Your task to perform on an android device: delete a single message in the gmail app Image 0: 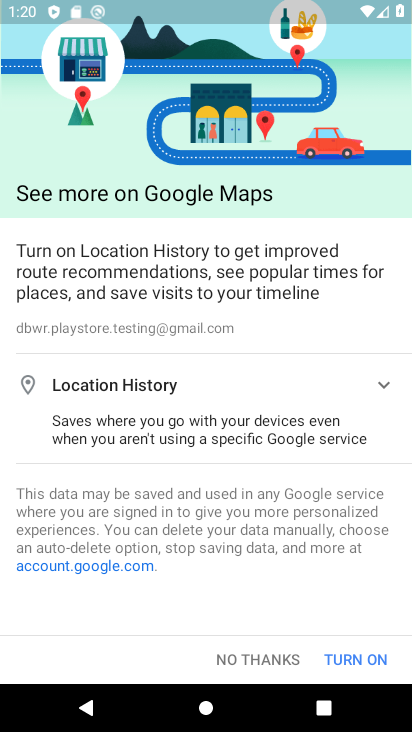
Step 0: press home button
Your task to perform on an android device: delete a single message in the gmail app Image 1: 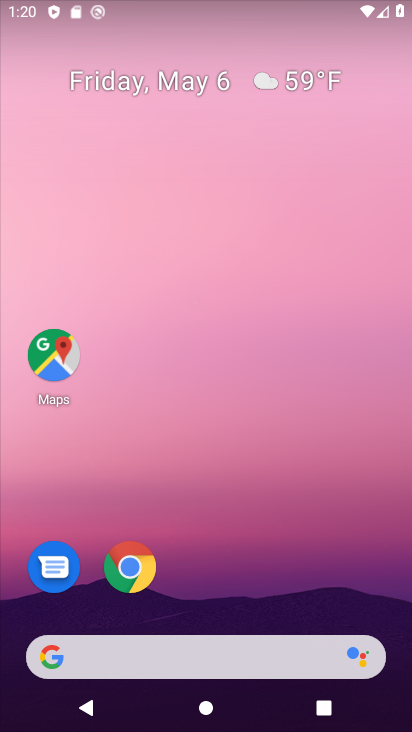
Step 1: drag from (279, 578) to (211, 44)
Your task to perform on an android device: delete a single message in the gmail app Image 2: 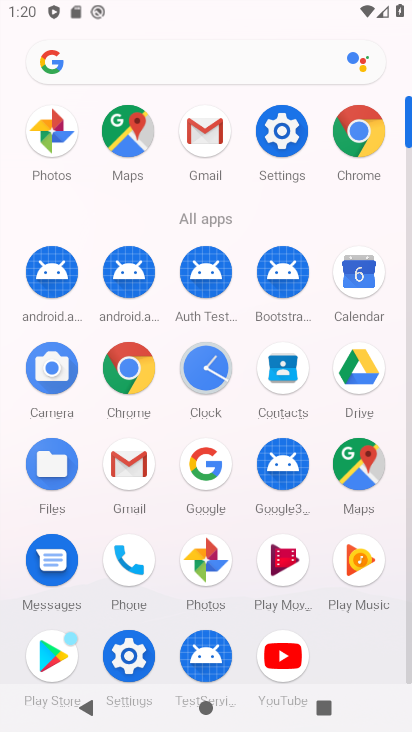
Step 2: click (119, 470)
Your task to perform on an android device: delete a single message in the gmail app Image 3: 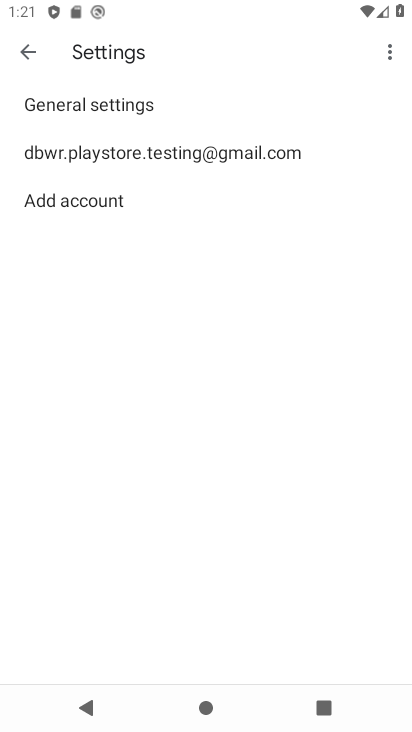
Step 3: click (156, 158)
Your task to perform on an android device: delete a single message in the gmail app Image 4: 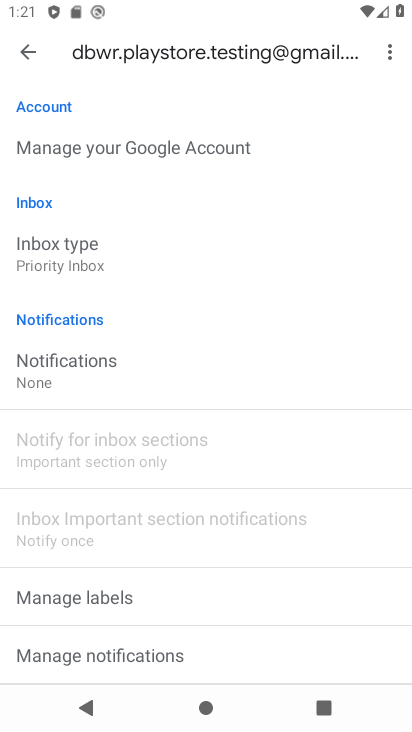
Step 4: drag from (202, 619) to (179, 562)
Your task to perform on an android device: delete a single message in the gmail app Image 5: 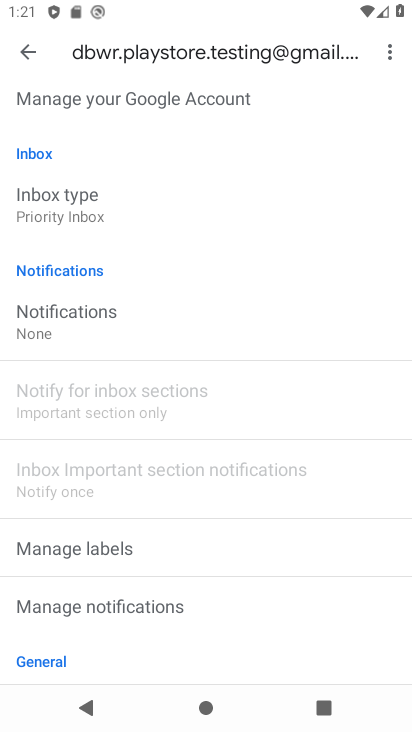
Step 5: click (38, 58)
Your task to perform on an android device: delete a single message in the gmail app Image 6: 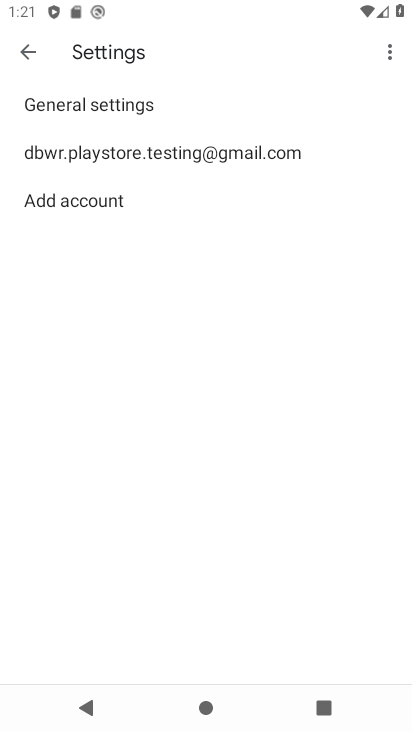
Step 6: click (34, 64)
Your task to perform on an android device: delete a single message in the gmail app Image 7: 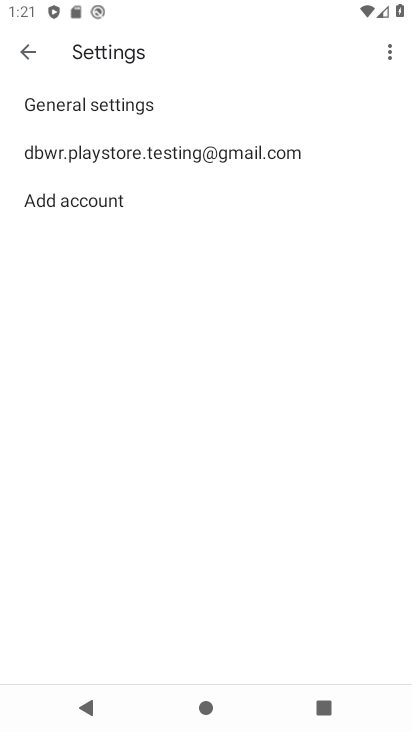
Step 7: click (29, 55)
Your task to perform on an android device: delete a single message in the gmail app Image 8: 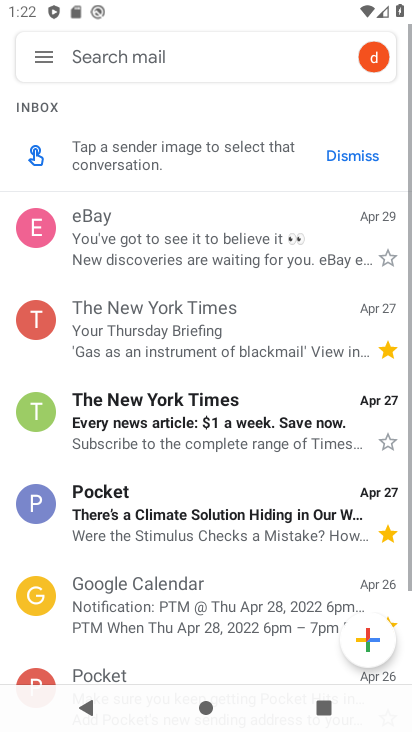
Step 8: click (29, 54)
Your task to perform on an android device: delete a single message in the gmail app Image 9: 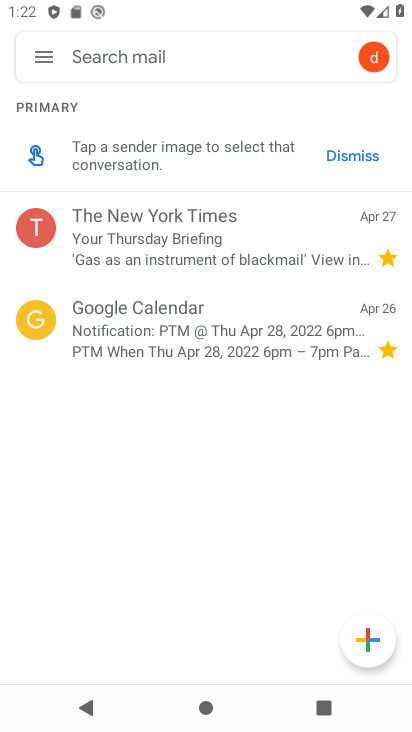
Step 9: click (50, 63)
Your task to perform on an android device: delete a single message in the gmail app Image 10: 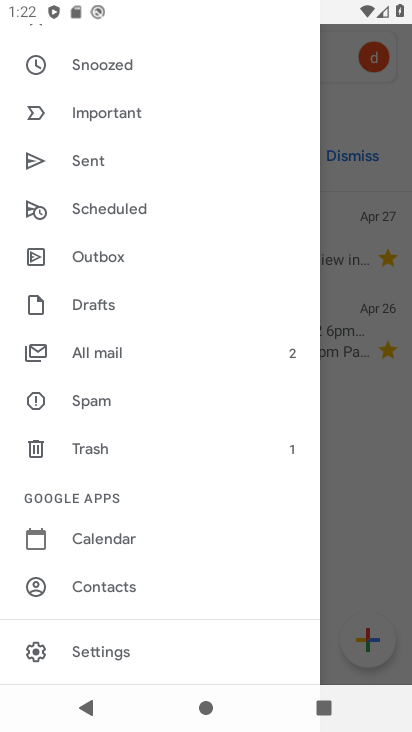
Step 10: drag from (158, 548) to (147, 327)
Your task to perform on an android device: delete a single message in the gmail app Image 11: 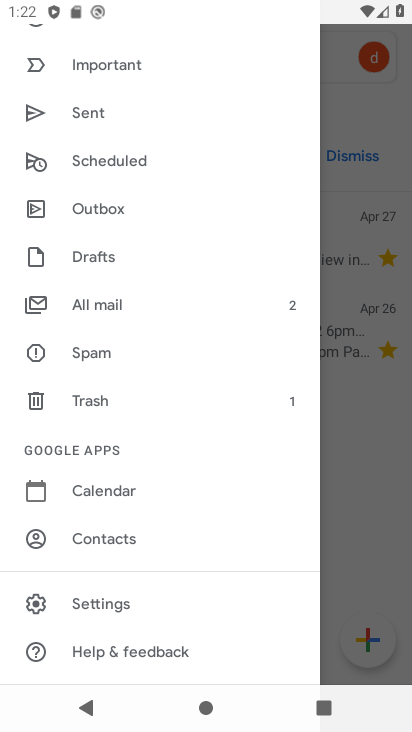
Step 11: click (333, 233)
Your task to perform on an android device: delete a single message in the gmail app Image 12: 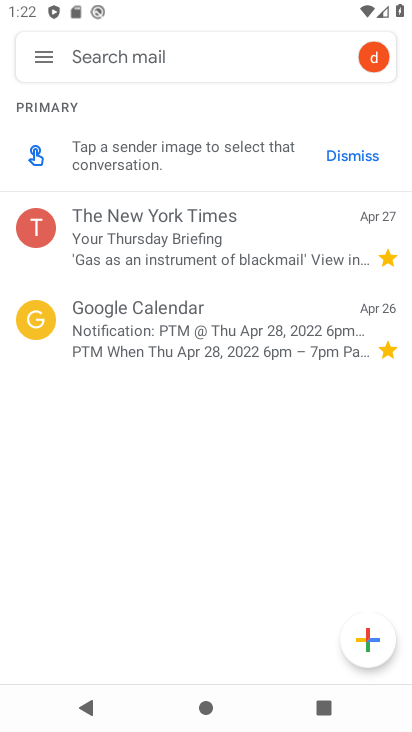
Step 12: click (36, 218)
Your task to perform on an android device: delete a single message in the gmail app Image 13: 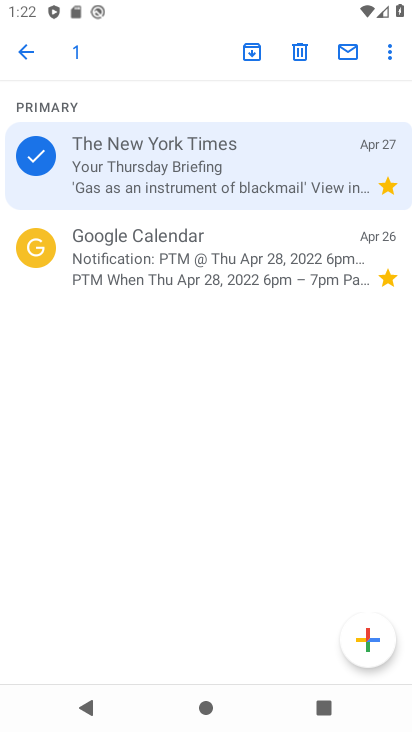
Step 13: click (293, 54)
Your task to perform on an android device: delete a single message in the gmail app Image 14: 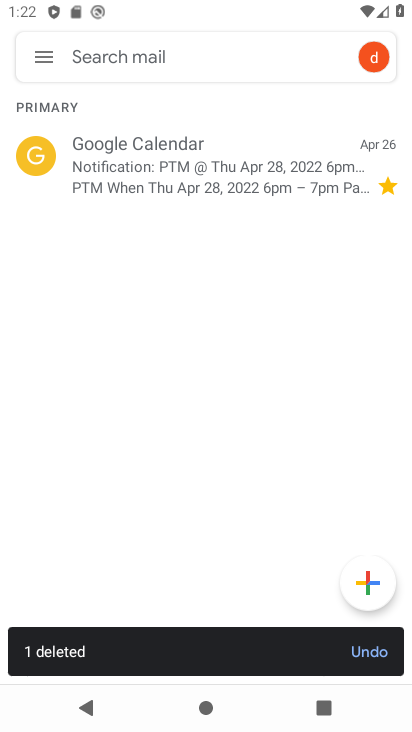
Step 14: task complete